Your task to perform on an android device: How do I get to the nearest Sprint Store? Image 0: 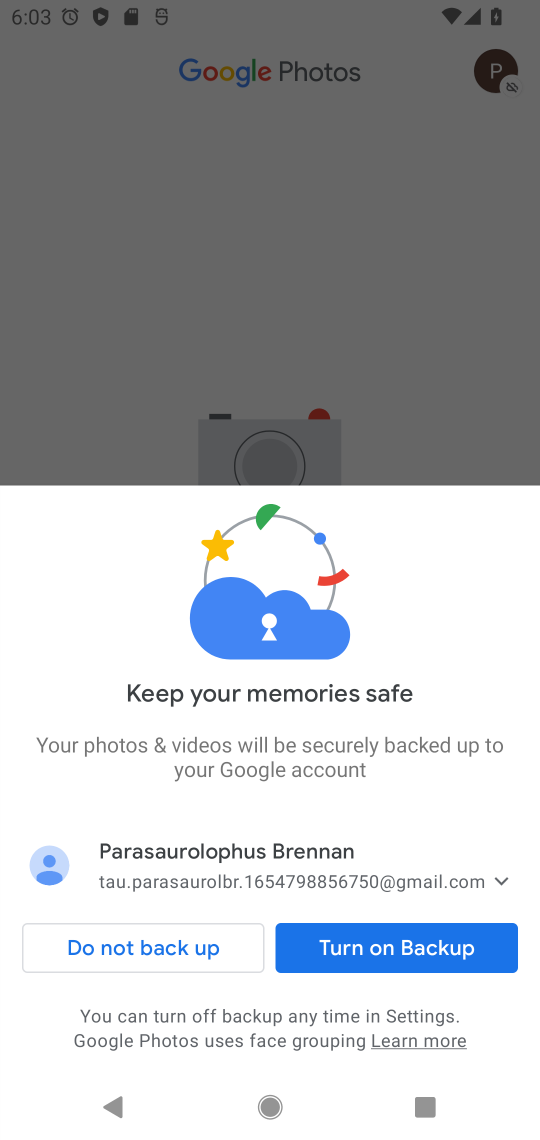
Step 0: press home button
Your task to perform on an android device: How do I get to the nearest Sprint Store? Image 1: 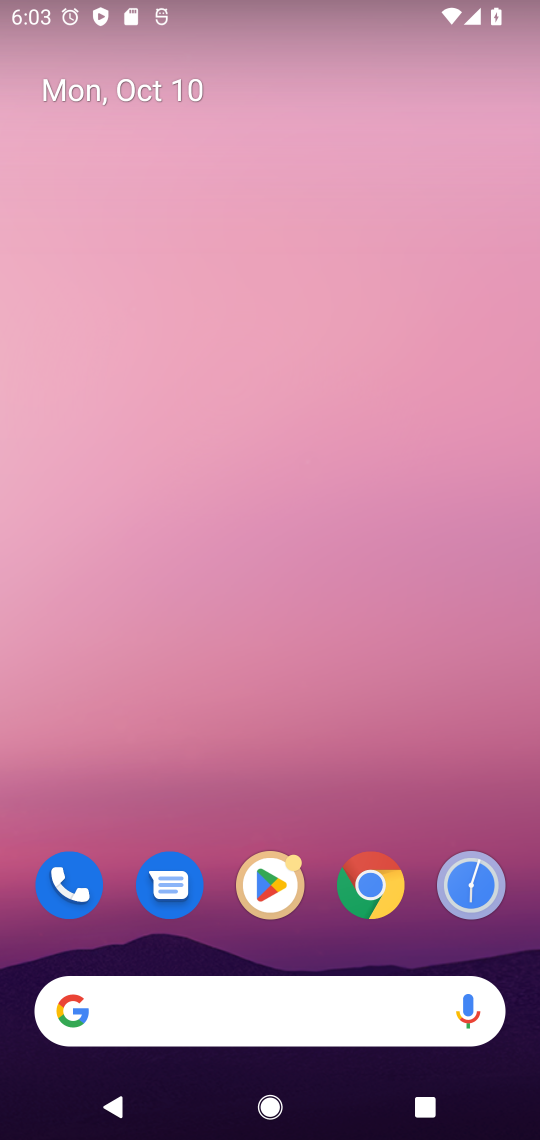
Step 1: drag from (283, 949) to (287, 732)
Your task to perform on an android device: How do I get to the nearest Sprint Store? Image 2: 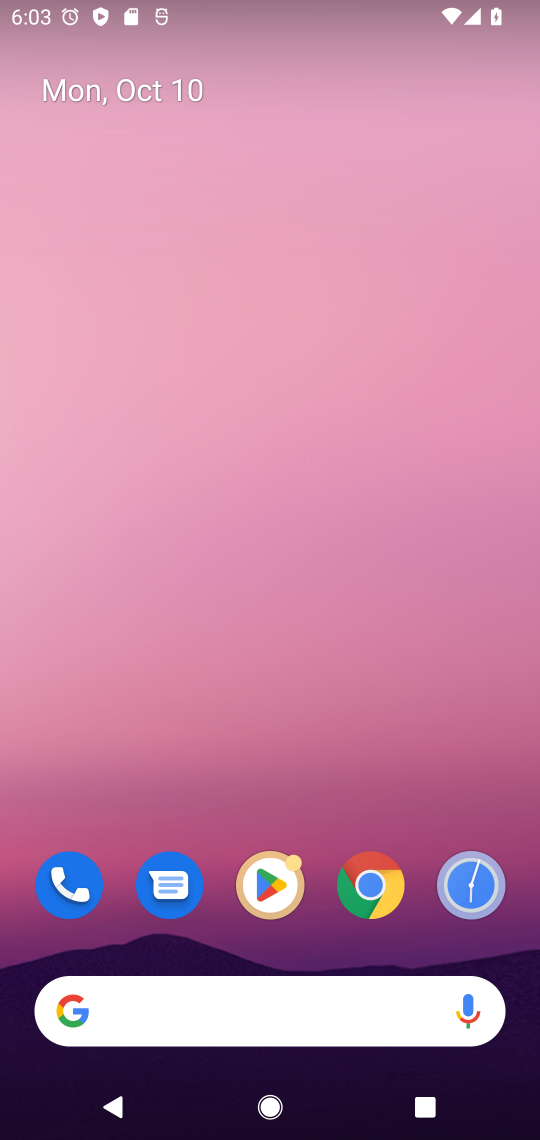
Step 2: click (372, 895)
Your task to perform on an android device: How do I get to the nearest Sprint Store? Image 3: 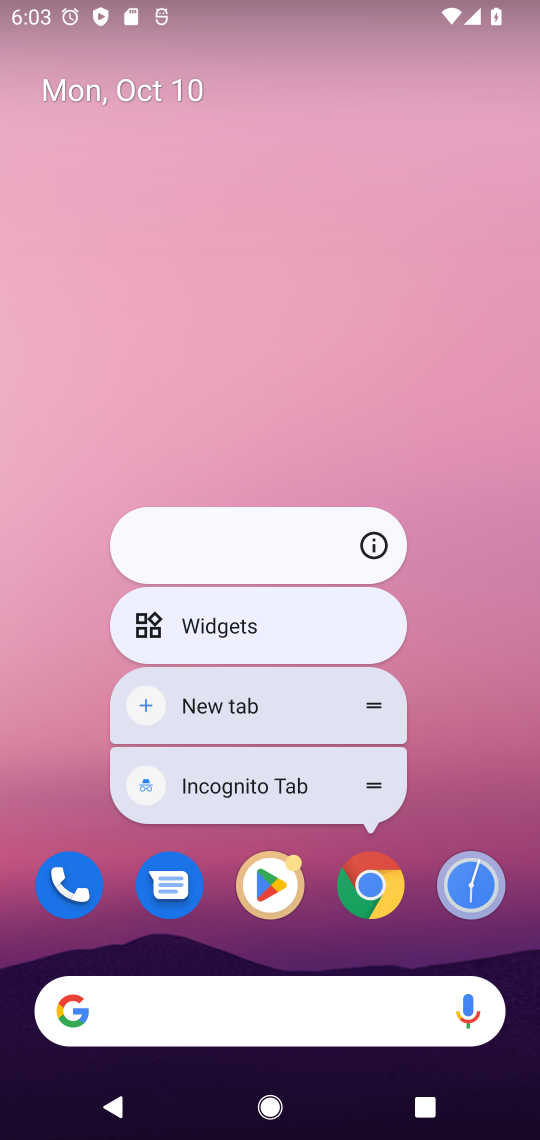
Step 3: click (379, 882)
Your task to perform on an android device: How do I get to the nearest Sprint Store? Image 4: 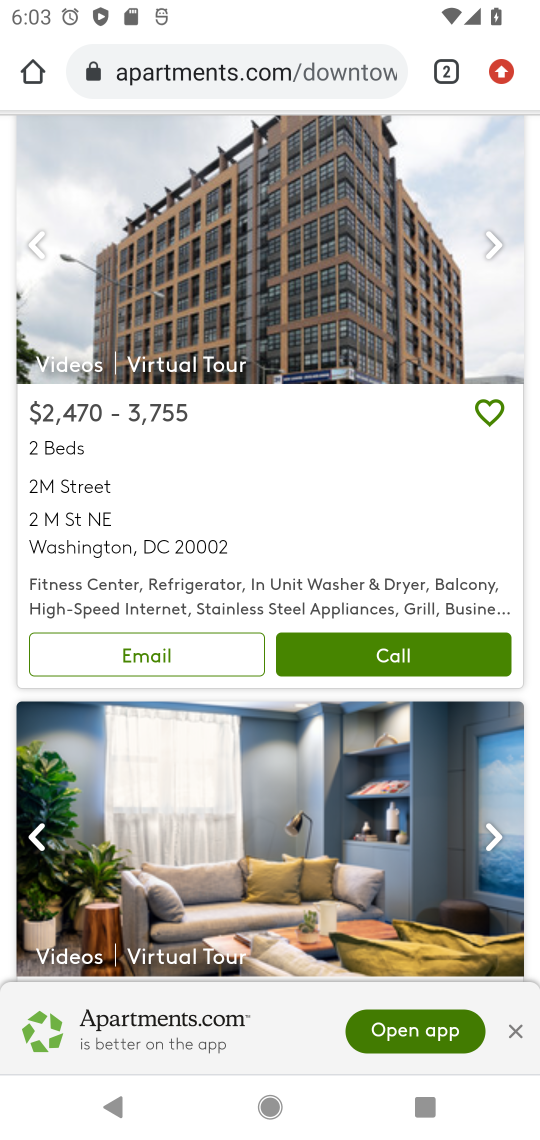
Step 4: click (253, 75)
Your task to perform on an android device: How do I get to the nearest Sprint Store? Image 5: 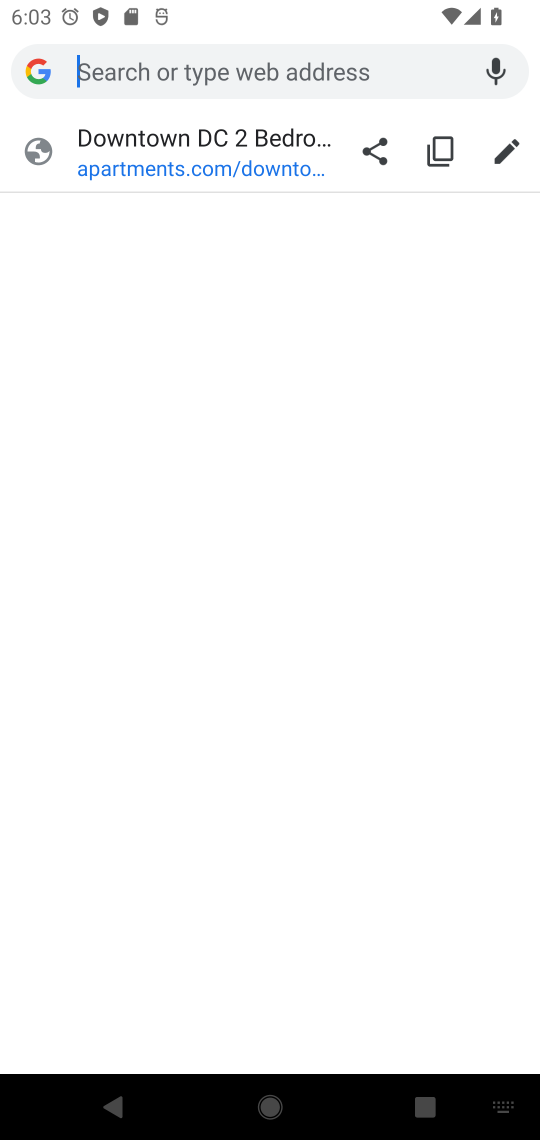
Step 5: type "nearest Sprint Store"
Your task to perform on an android device: How do I get to the nearest Sprint Store? Image 6: 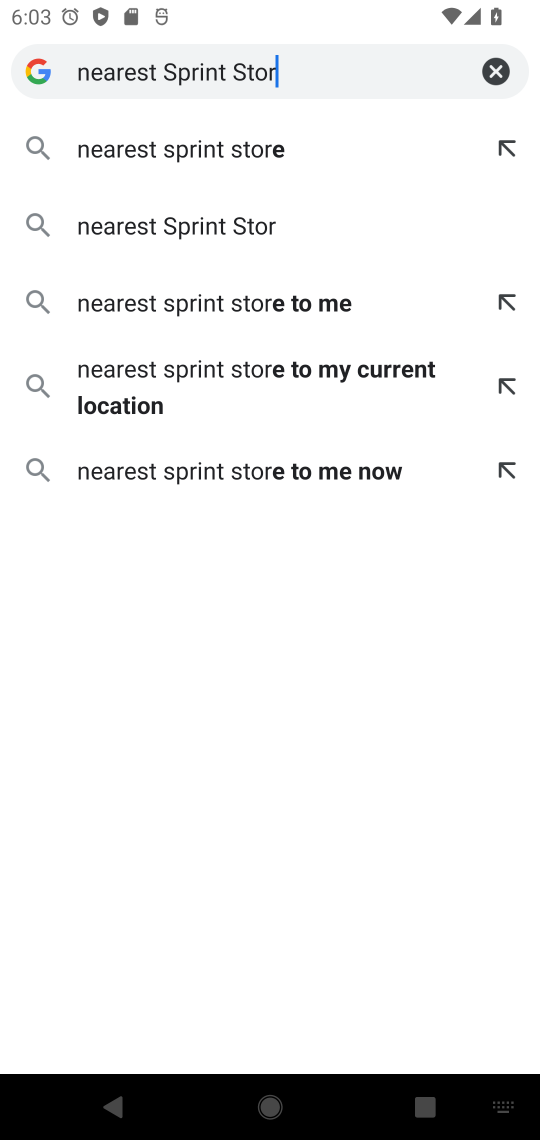
Step 6: type ""
Your task to perform on an android device: How do I get to the nearest Sprint Store? Image 7: 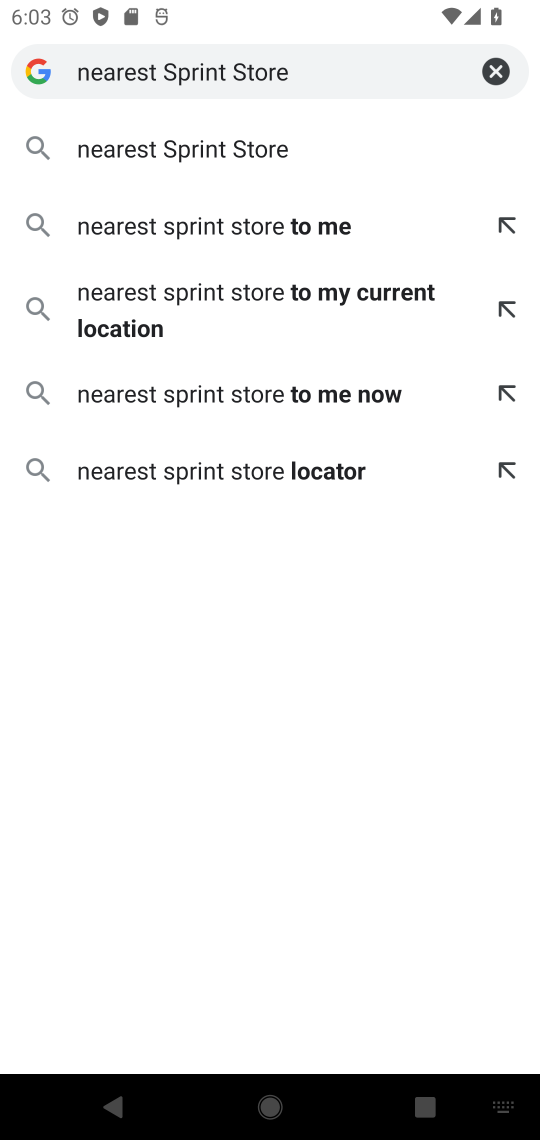
Step 7: click (227, 147)
Your task to perform on an android device: How do I get to the nearest Sprint Store? Image 8: 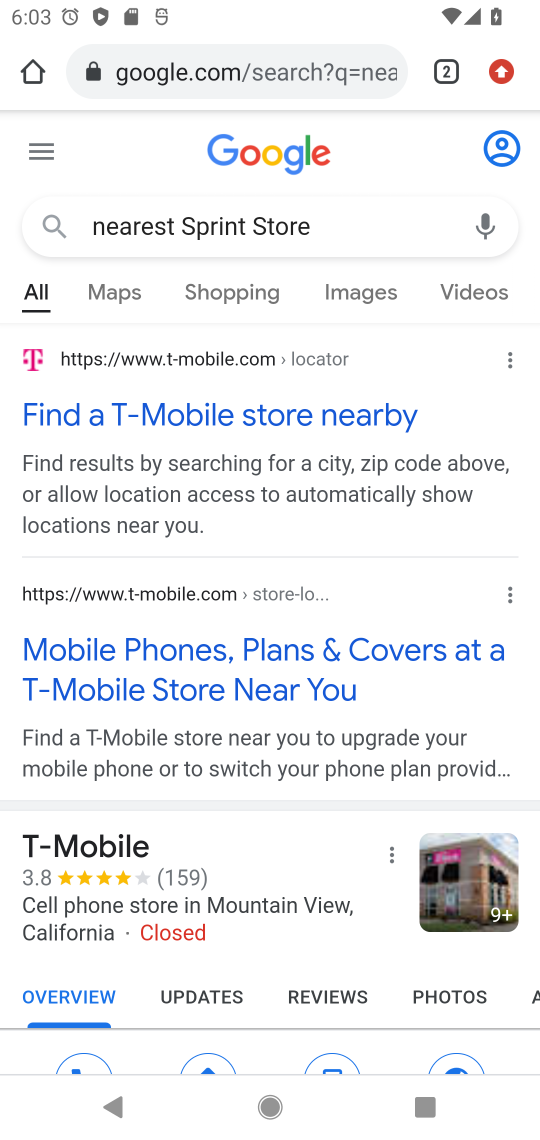
Step 8: task complete